Your task to perform on an android device: Open privacy settings Image 0: 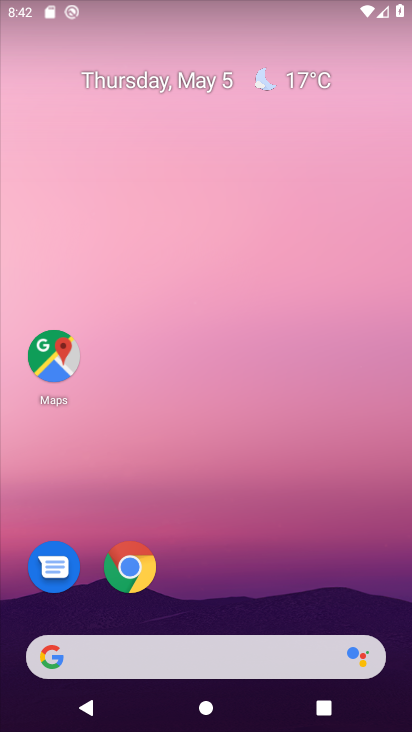
Step 0: drag from (317, 550) to (271, 22)
Your task to perform on an android device: Open privacy settings Image 1: 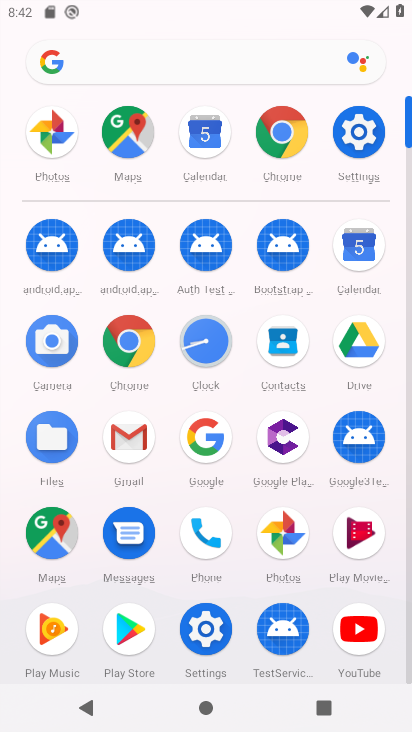
Step 1: click (360, 125)
Your task to perform on an android device: Open privacy settings Image 2: 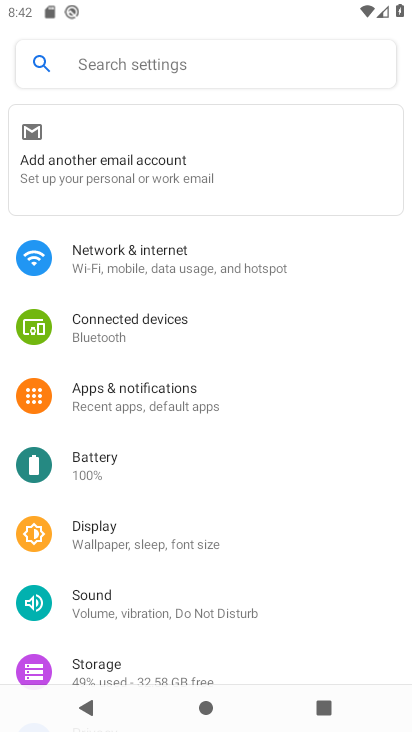
Step 2: drag from (244, 637) to (241, 147)
Your task to perform on an android device: Open privacy settings Image 3: 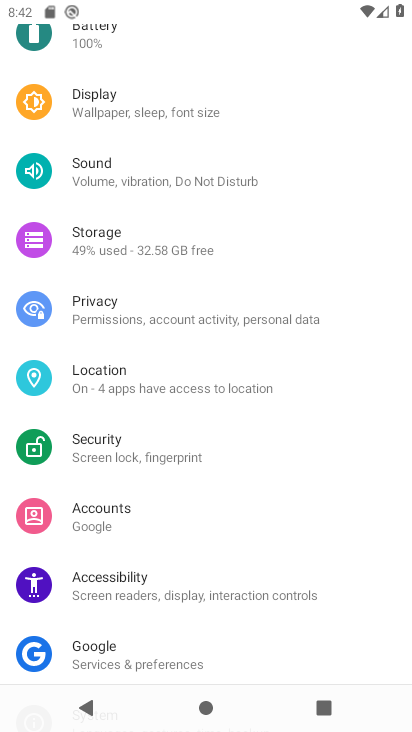
Step 3: click (217, 316)
Your task to perform on an android device: Open privacy settings Image 4: 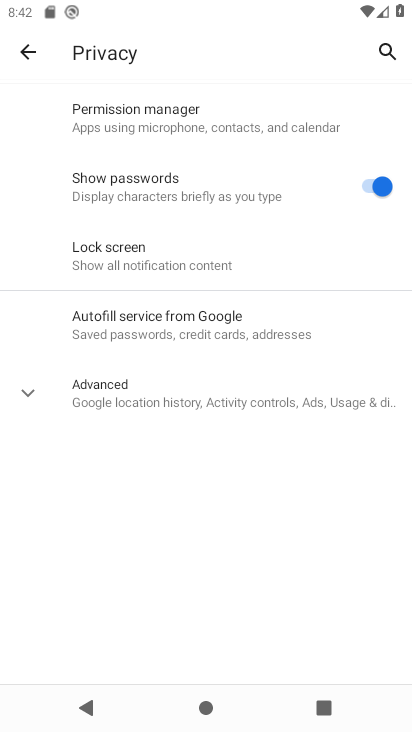
Step 4: task complete